Your task to perform on an android device: Go to notification settings Image 0: 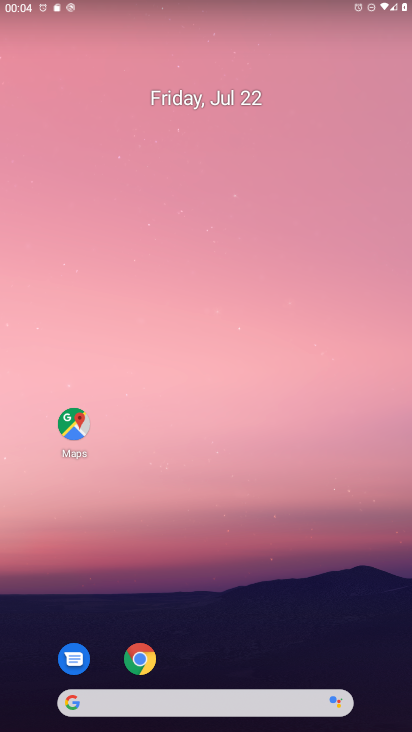
Step 0: drag from (202, 693) to (206, 74)
Your task to perform on an android device: Go to notification settings Image 1: 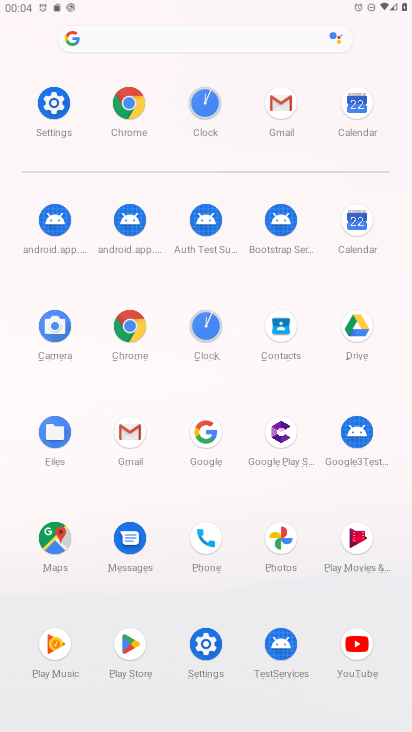
Step 1: click (208, 642)
Your task to perform on an android device: Go to notification settings Image 2: 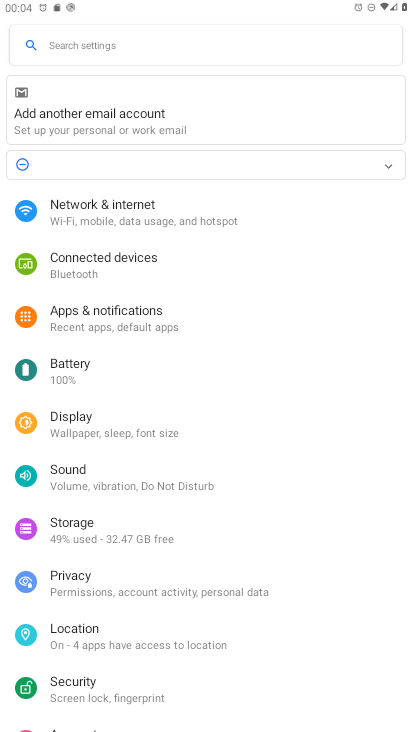
Step 2: click (121, 317)
Your task to perform on an android device: Go to notification settings Image 3: 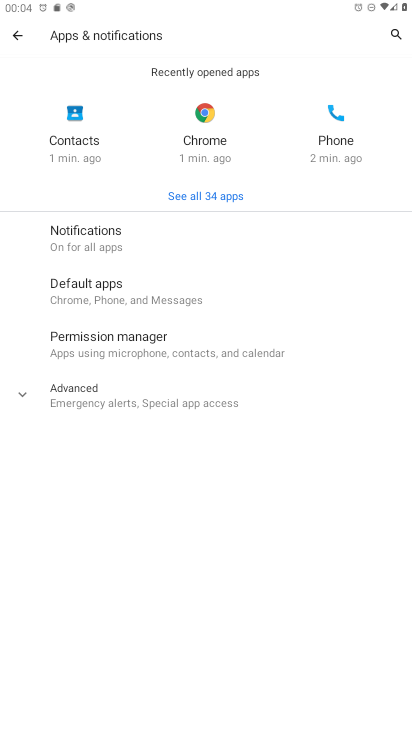
Step 3: click (83, 237)
Your task to perform on an android device: Go to notification settings Image 4: 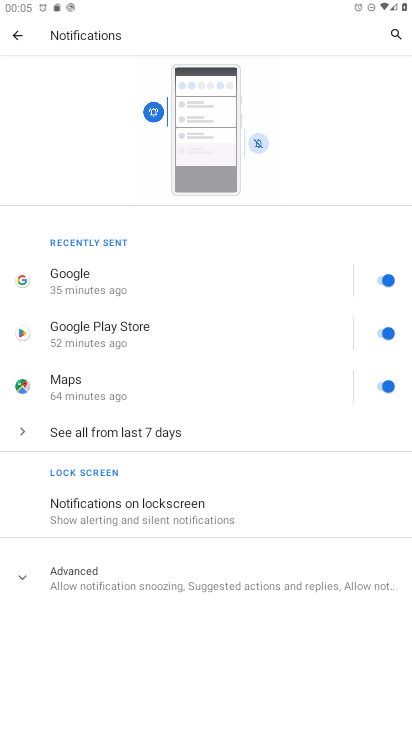
Step 4: task complete